Your task to perform on an android device: Go to Maps Image 0: 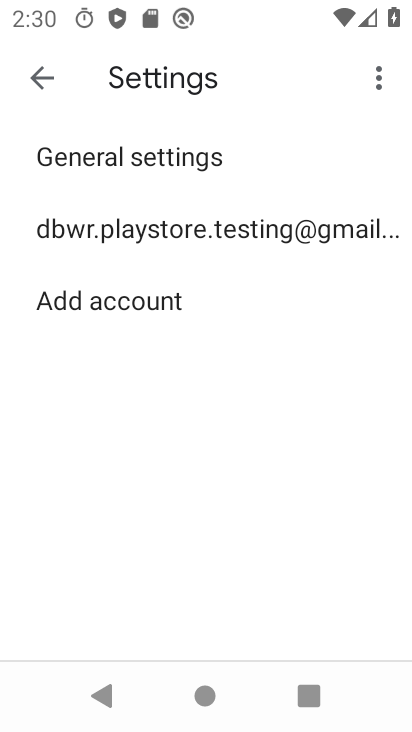
Step 0: press back button
Your task to perform on an android device: Go to Maps Image 1: 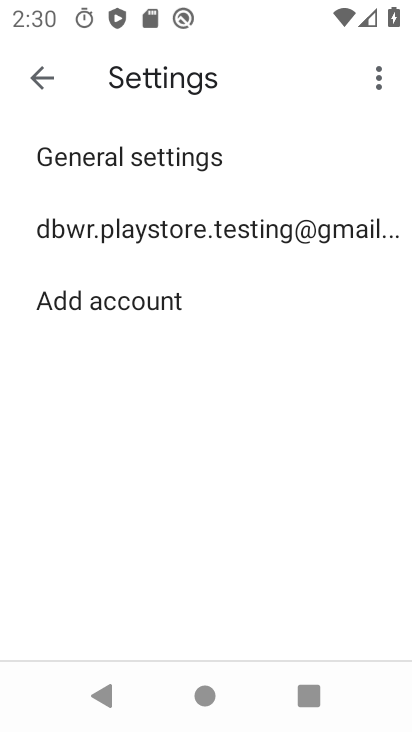
Step 1: click (28, 76)
Your task to perform on an android device: Go to Maps Image 2: 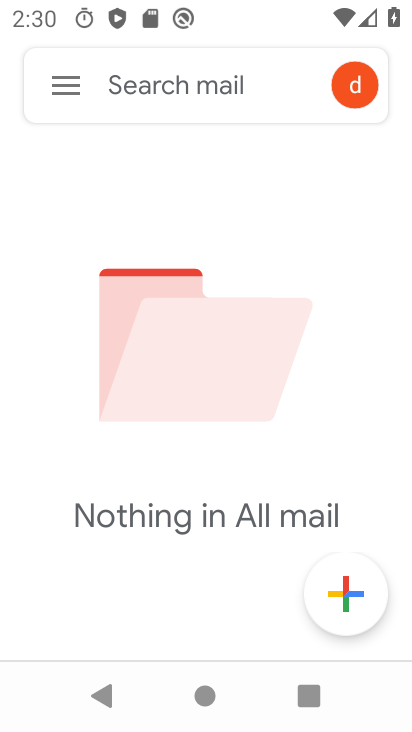
Step 2: press back button
Your task to perform on an android device: Go to Maps Image 3: 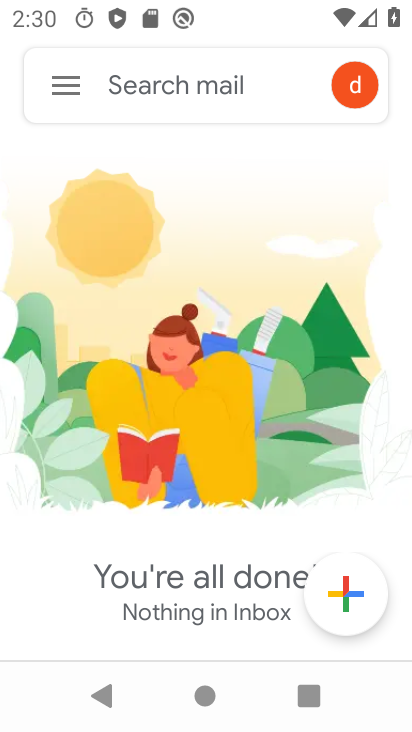
Step 3: press back button
Your task to perform on an android device: Go to Maps Image 4: 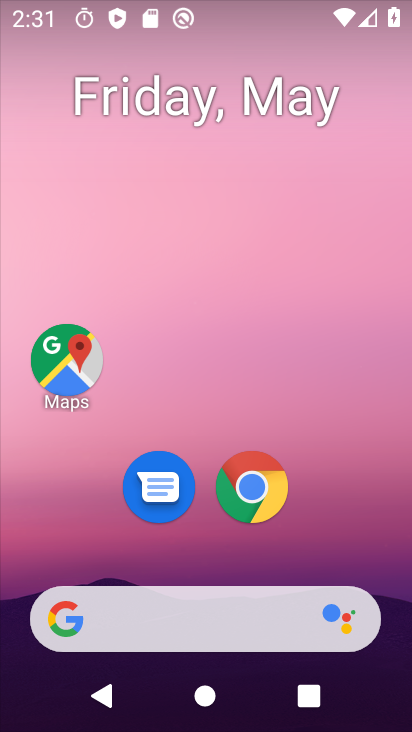
Step 4: click (74, 350)
Your task to perform on an android device: Go to Maps Image 5: 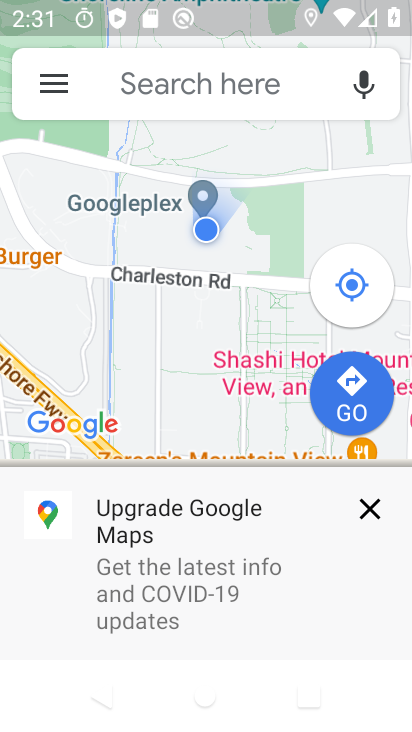
Step 5: task complete